Your task to perform on an android device: Open calendar and show me the third week of next month Image 0: 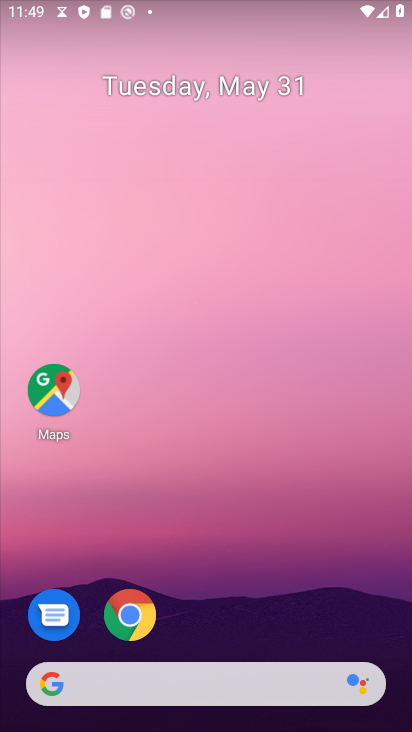
Step 0: drag from (138, 709) to (306, 9)
Your task to perform on an android device: Open calendar and show me the third week of next month Image 1: 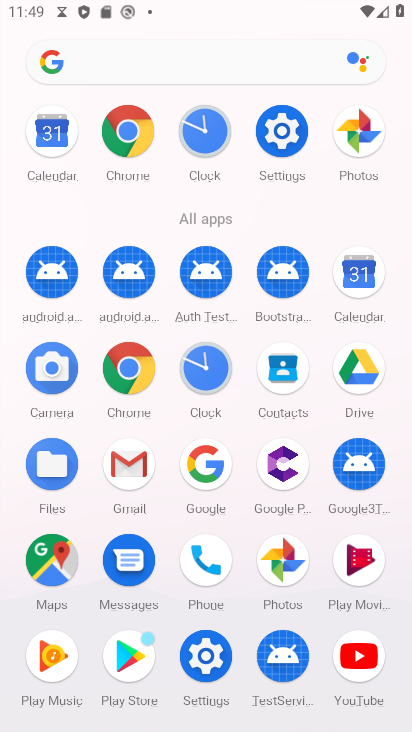
Step 1: click (381, 274)
Your task to perform on an android device: Open calendar and show me the third week of next month Image 2: 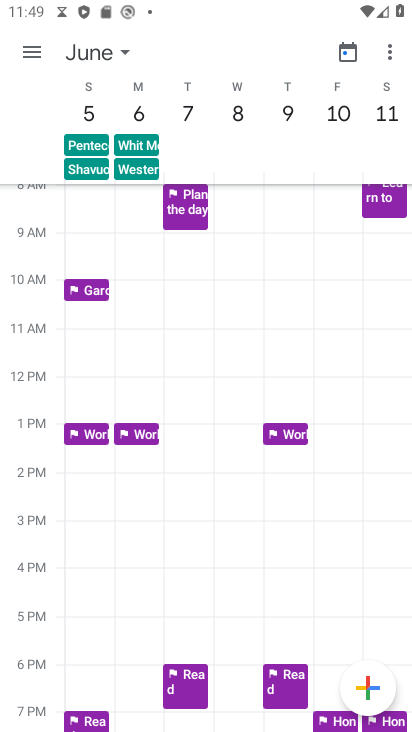
Step 2: click (120, 45)
Your task to perform on an android device: Open calendar and show me the third week of next month Image 3: 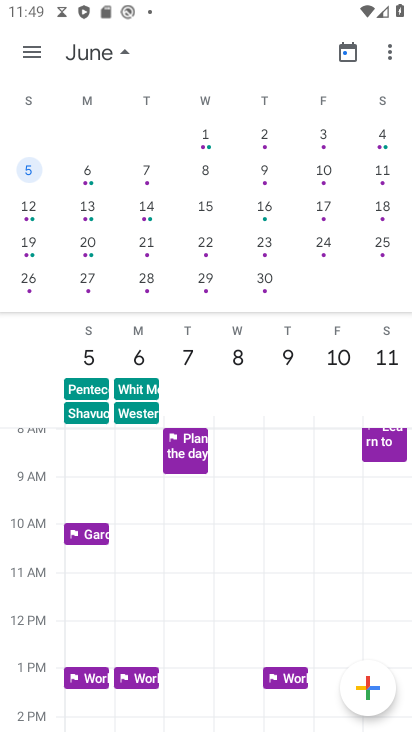
Step 3: click (332, 222)
Your task to perform on an android device: Open calendar and show me the third week of next month Image 4: 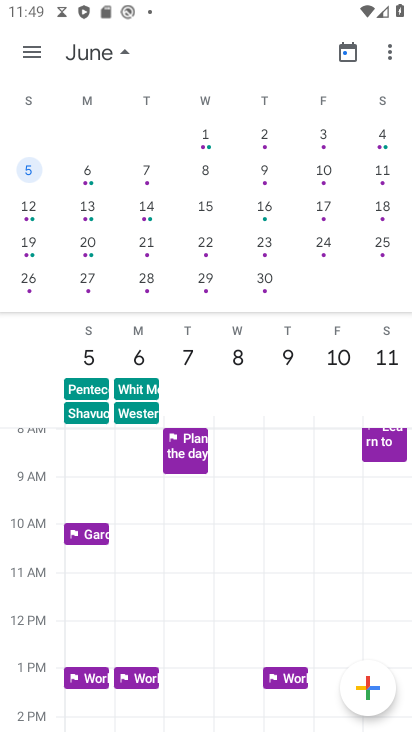
Step 4: click (261, 204)
Your task to perform on an android device: Open calendar and show me the third week of next month Image 5: 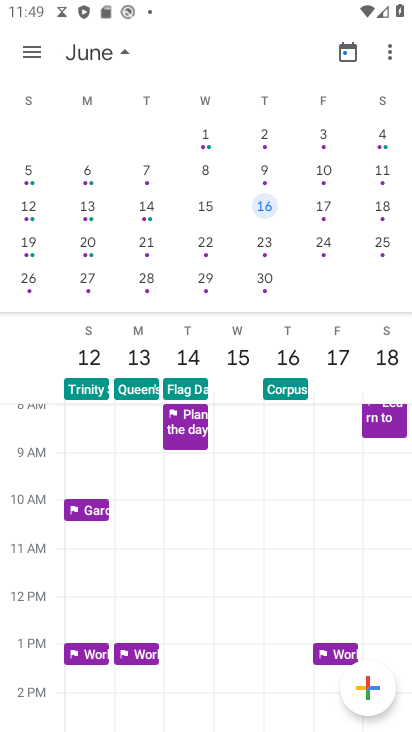
Step 5: task complete